Your task to perform on an android device: Search for "logitech g903" on target.com, select the first entry, add it to the cart, then select checkout. Image 0: 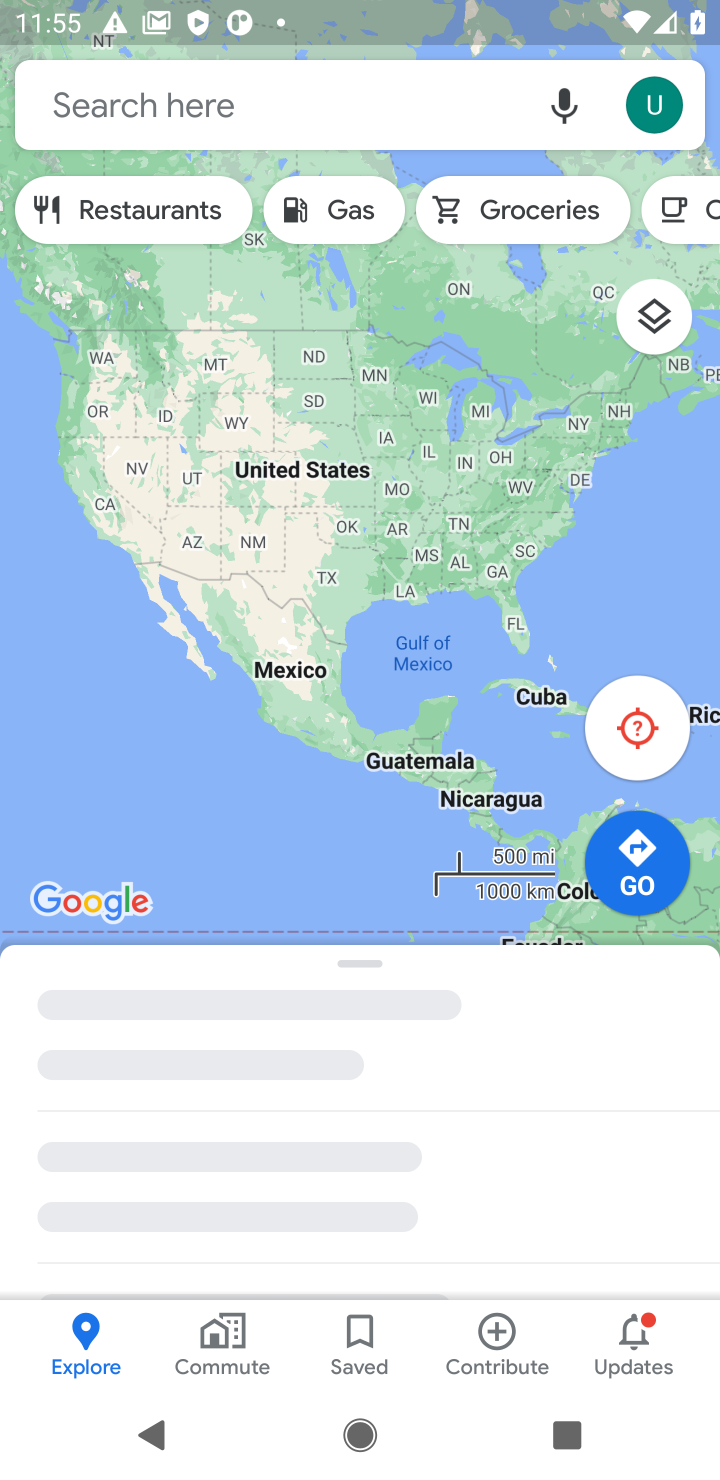
Step 0: press home button
Your task to perform on an android device: Search for "logitech g903" on target.com, select the first entry, add it to the cart, then select checkout. Image 1: 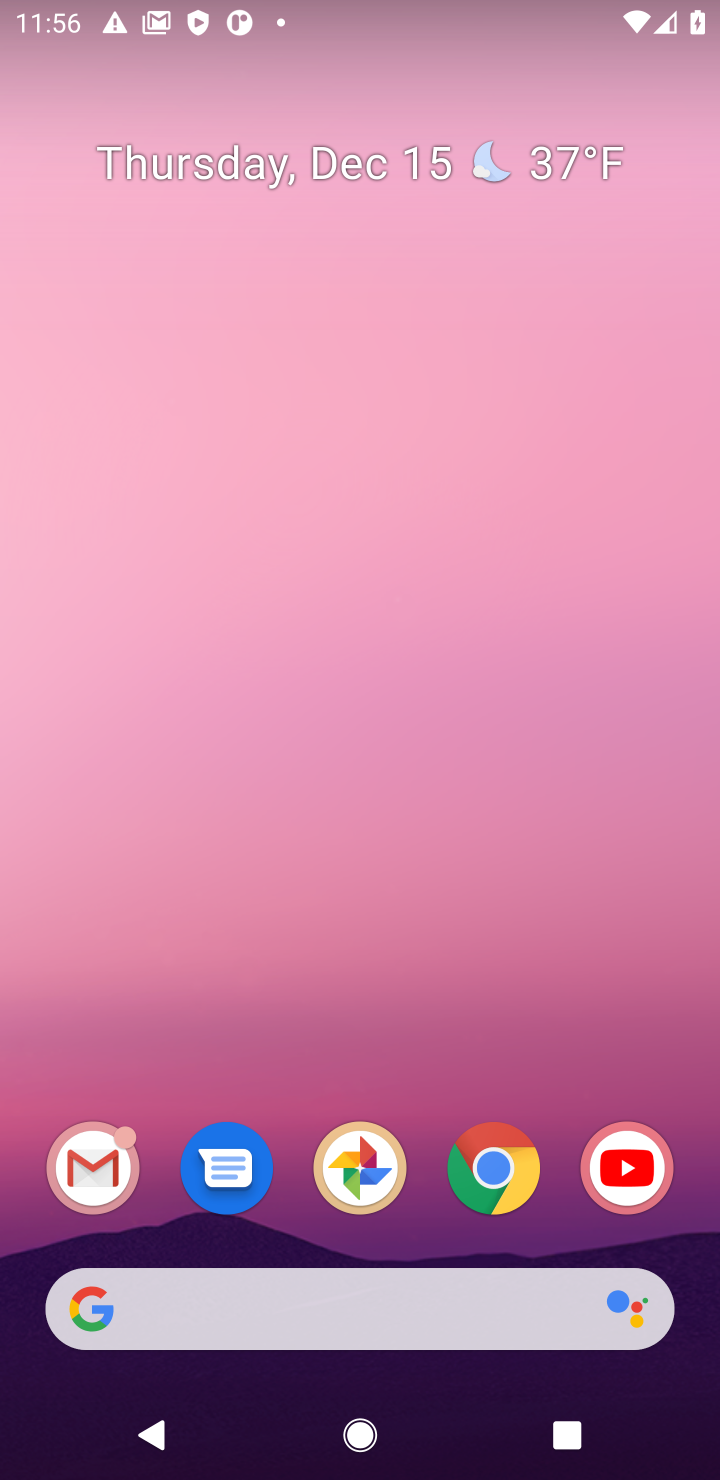
Step 1: click (492, 1175)
Your task to perform on an android device: Search for "logitech g903" on target.com, select the first entry, add it to the cart, then select checkout. Image 2: 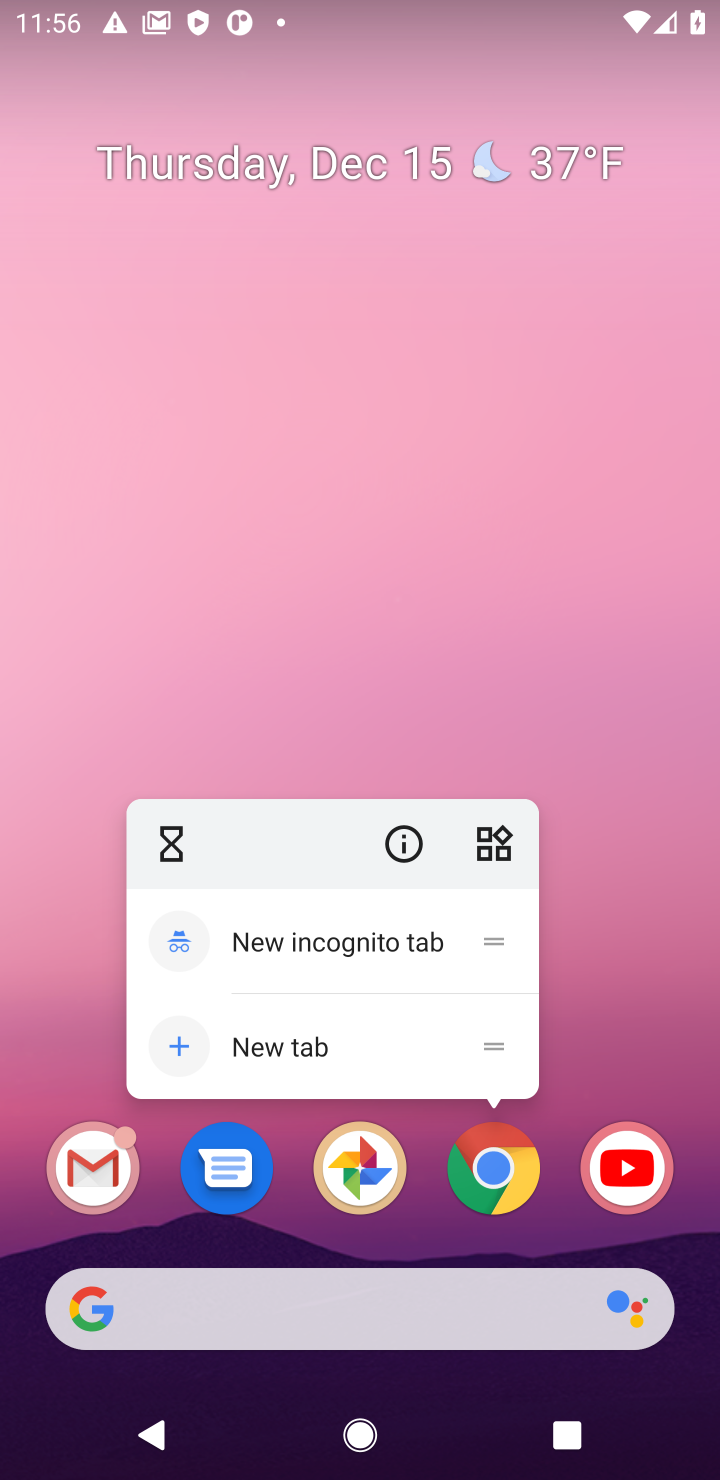
Step 2: click (654, 840)
Your task to perform on an android device: Search for "logitech g903" on target.com, select the first entry, add it to the cart, then select checkout. Image 3: 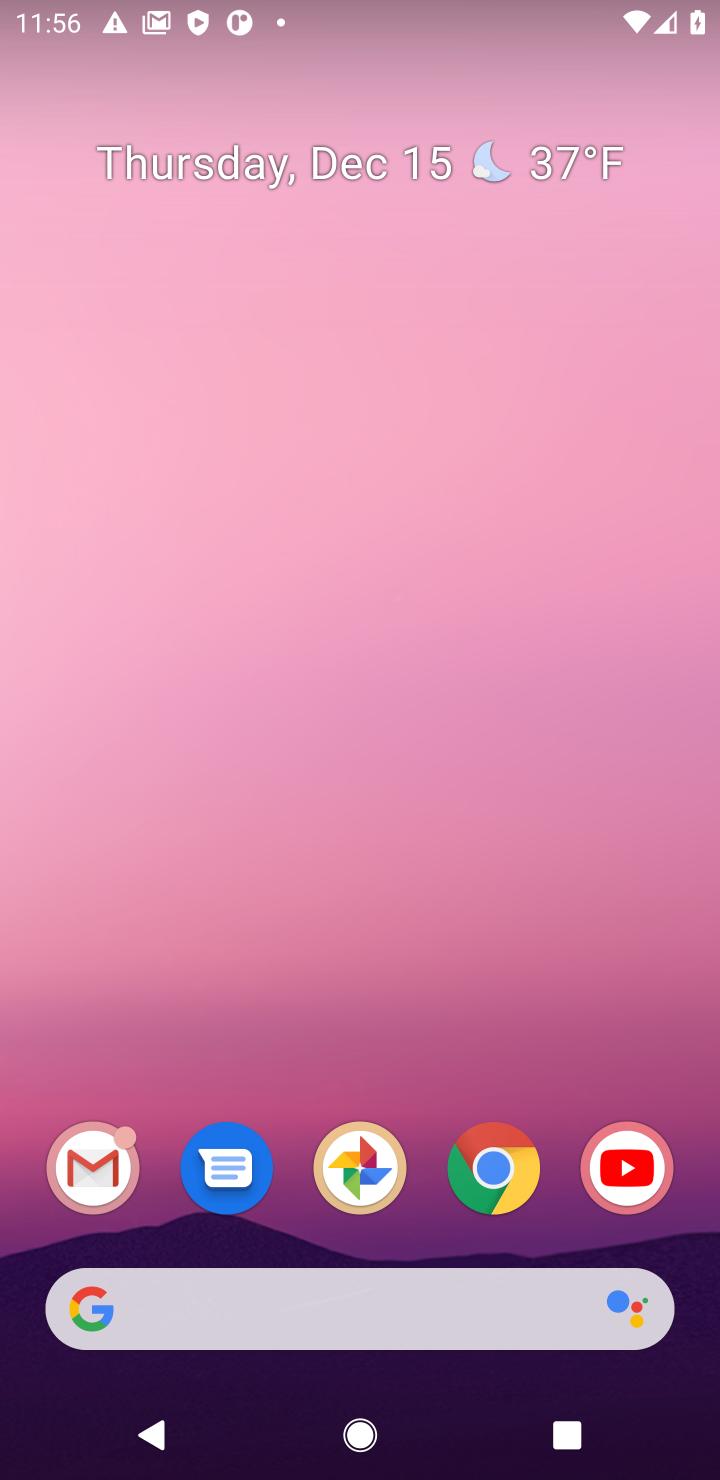
Step 3: click (490, 1197)
Your task to perform on an android device: Search for "logitech g903" on target.com, select the first entry, add it to the cart, then select checkout. Image 4: 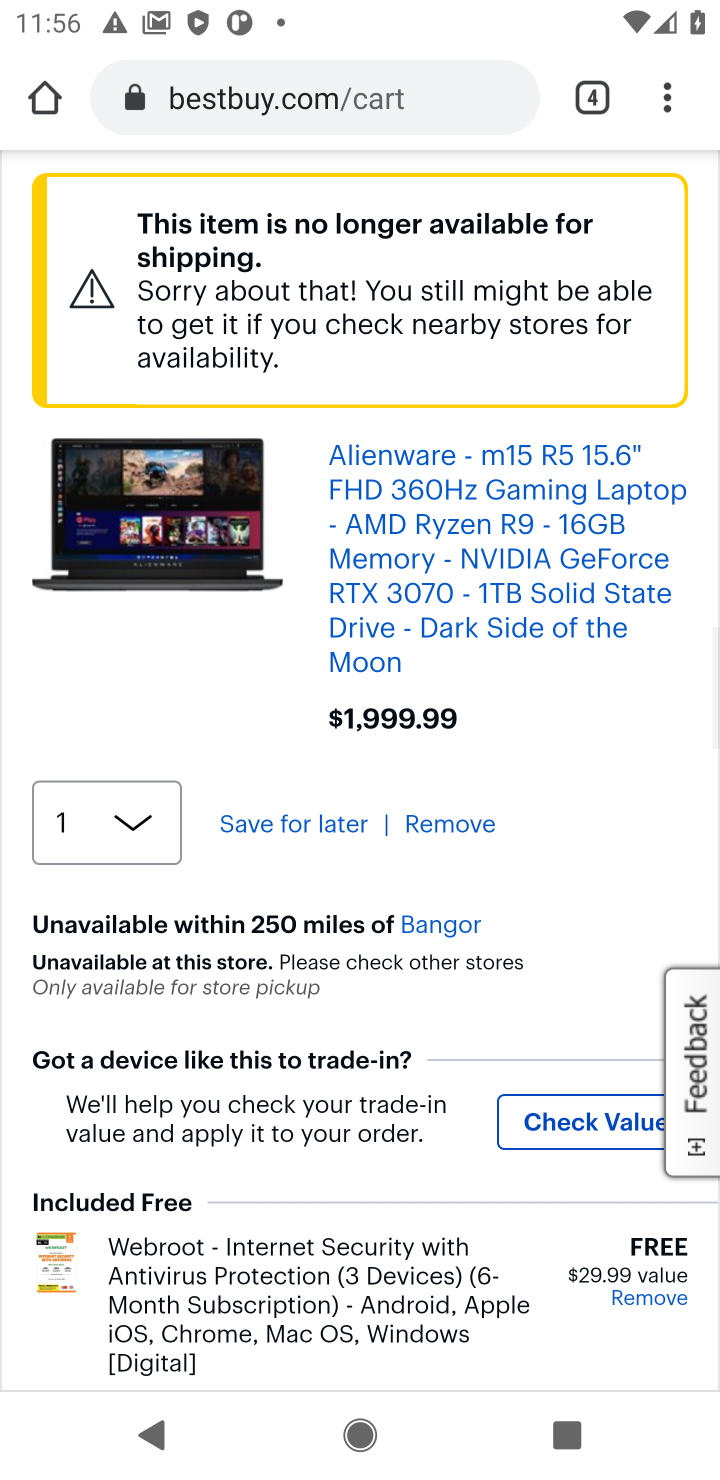
Step 4: click (264, 76)
Your task to perform on an android device: Search for "logitech g903" on target.com, select the first entry, add it to the cart, then select checkout. Image 5: 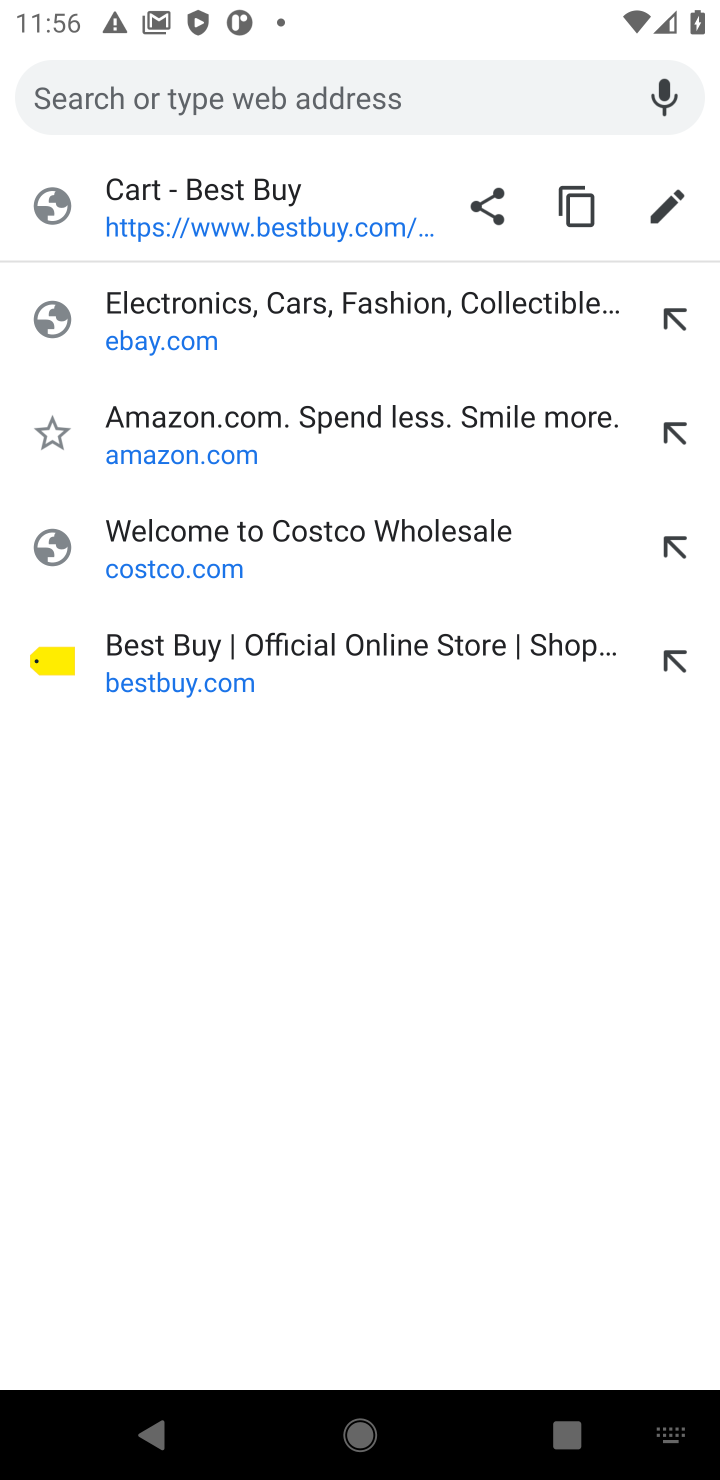
Step 5: type "targety"
Your task to perform on an android device: Search for "logitech g903" on target.com, select the first entry, add it to the cart, then select checkout. Image 6: 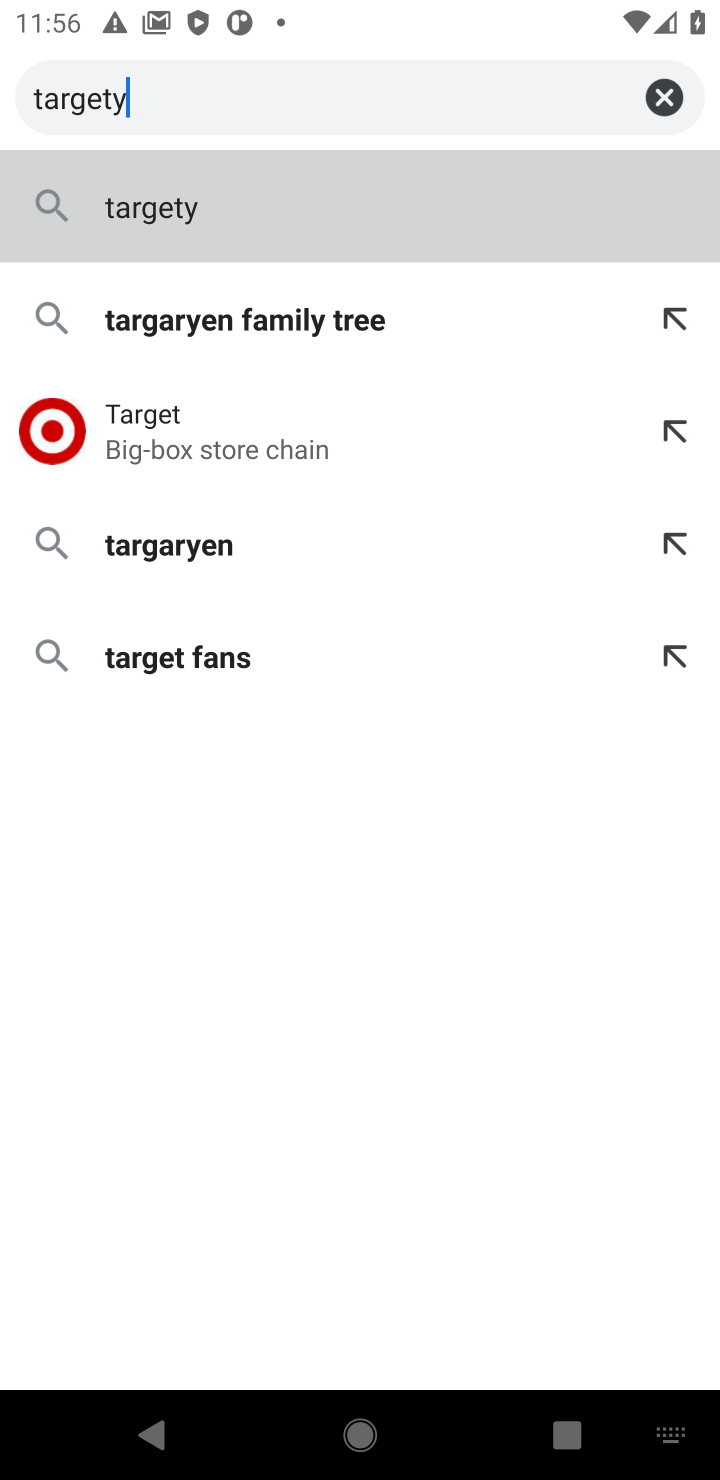
Step 6: click (198, 437)
Your task to perform on an android device: Search for "logitech g903" on target.com, select the first entry, add it to the cart, then select checkout. Image 7: 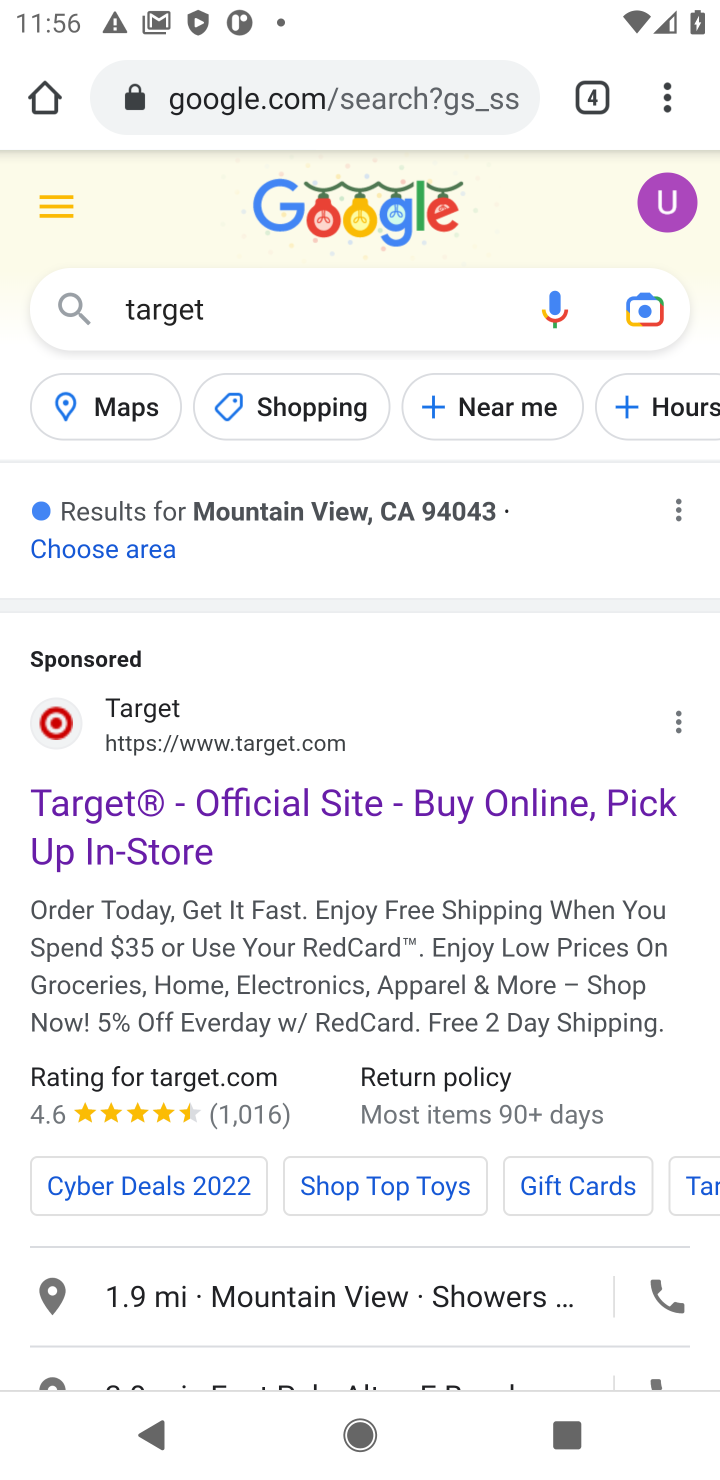
Step 7: click (324, 814)
Your task to perform on an android device: Search for "logitech g903" on target.com, select the first entry, add it to the cart, then select checkout. Image 8: 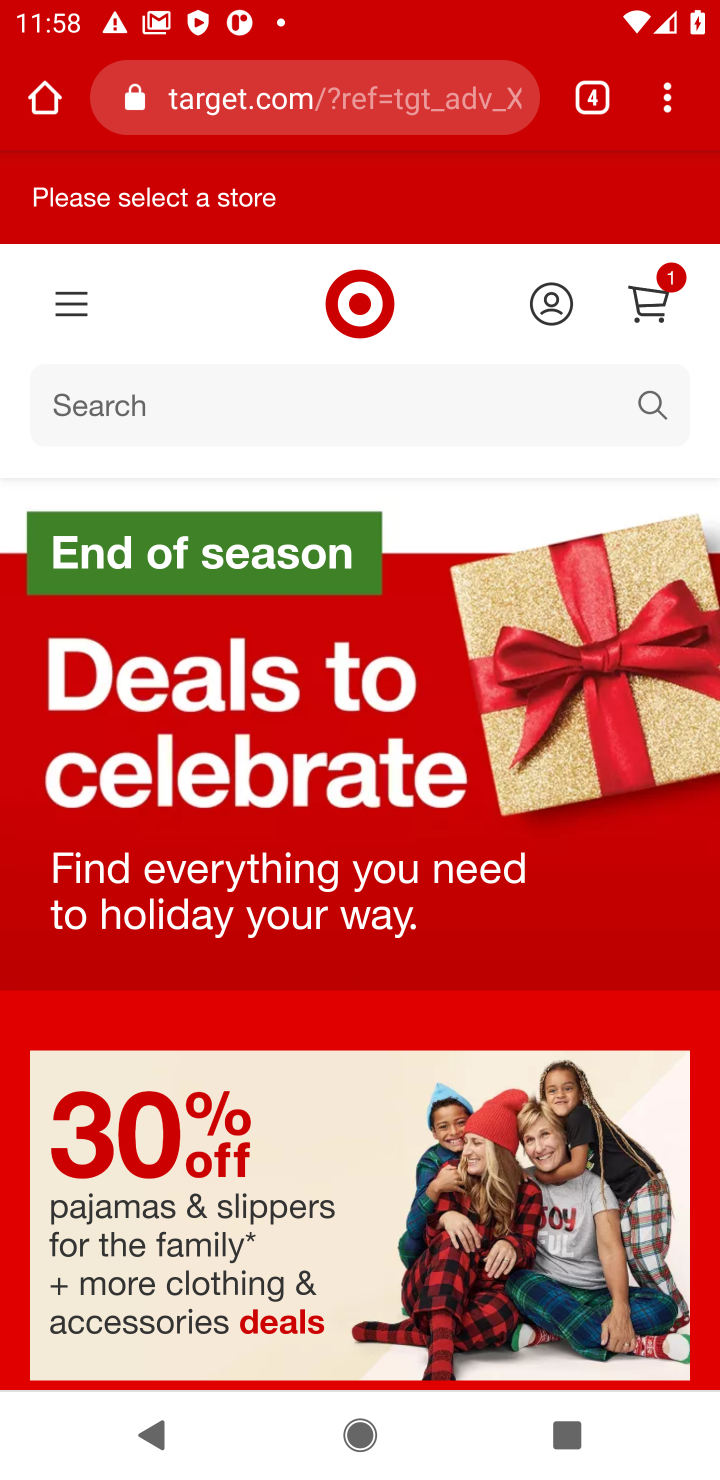
Step 8: click (415, 413)
Your task to perform on an android device: Search for "logitech g903" on target.com, select the first entry, add it to the cart, then select checkout. Image 9: 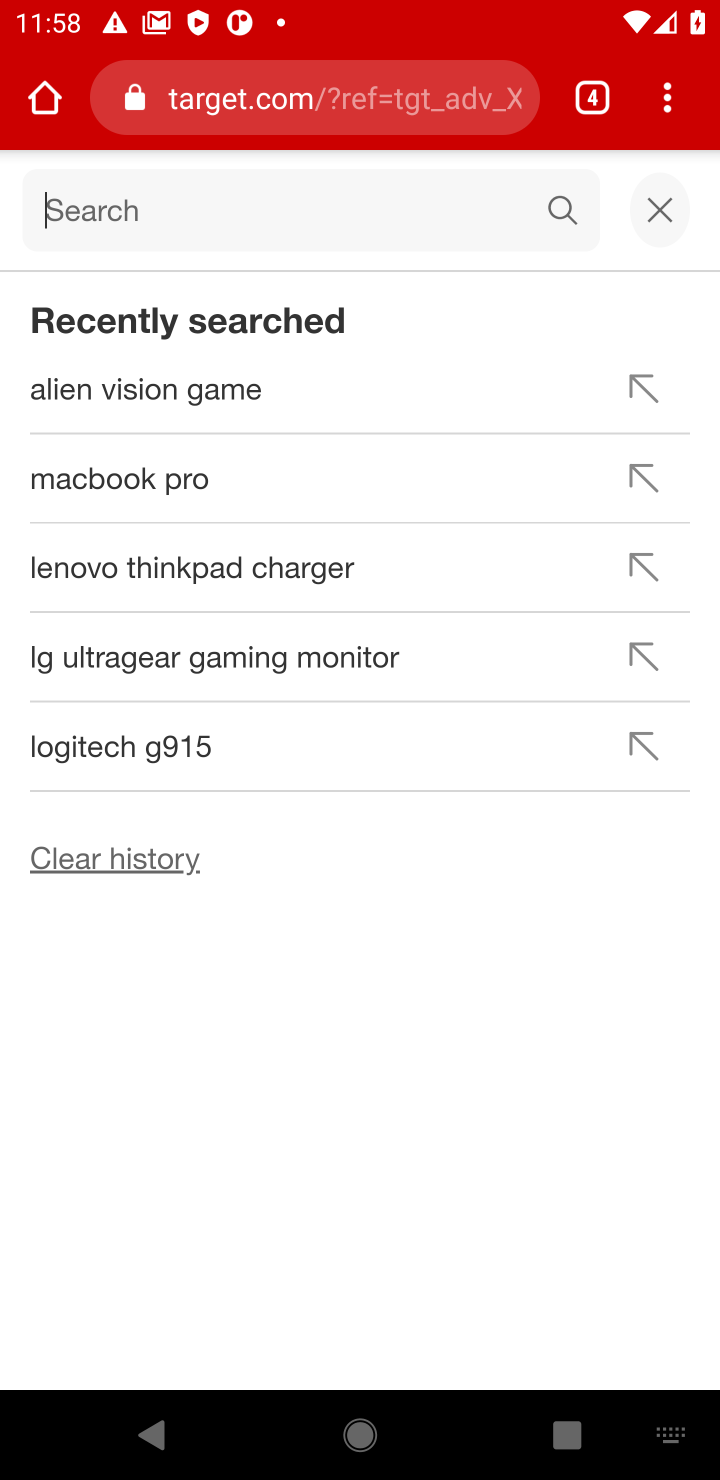
Step 9: type "logitech g903"
Your task to perform on an android device: Search for "logitech g903" on target.com, select the first entry, add it to the cart, then select checkout. Image 10: 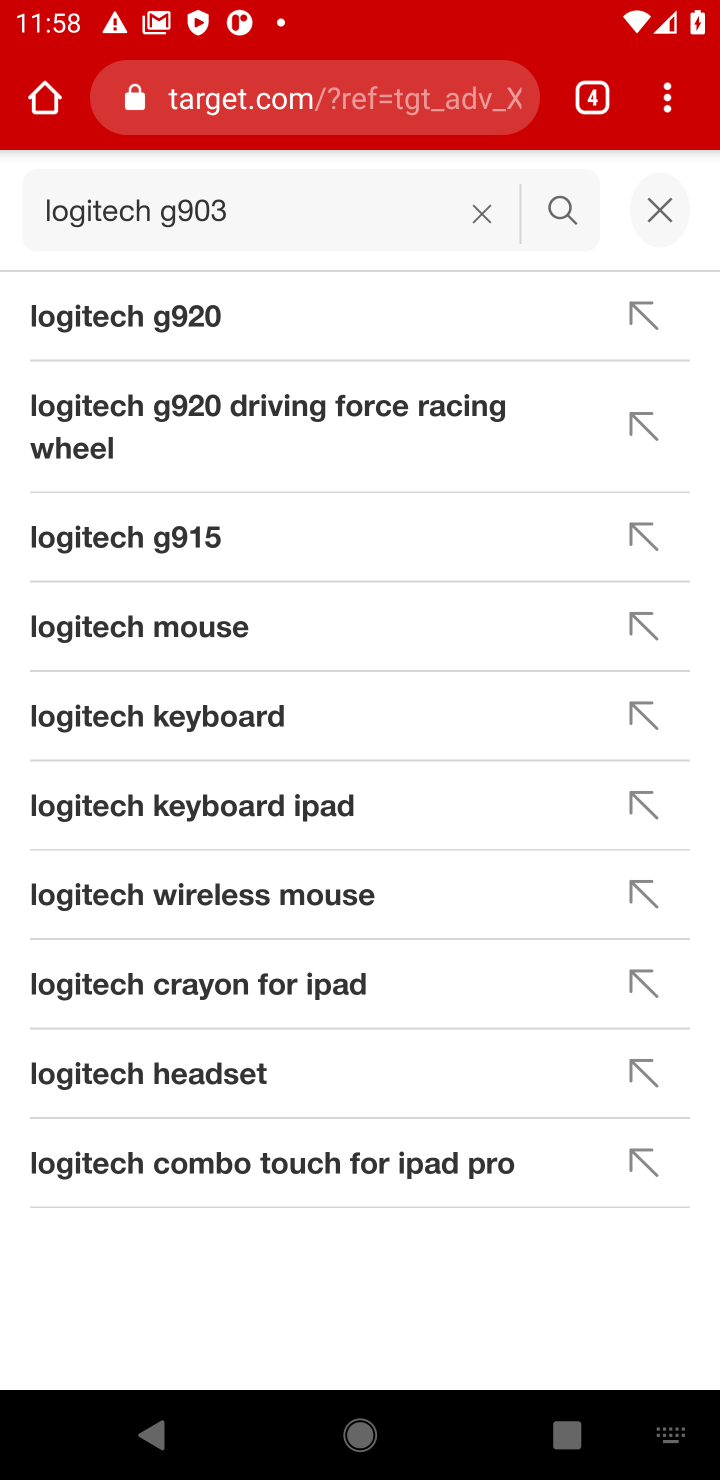
Step 10: click (101, 325)
Your task to perform on an android device: Search for "logitech g903" on target.com, select the first entry, add it to the cart, then select checkout. Image 11: 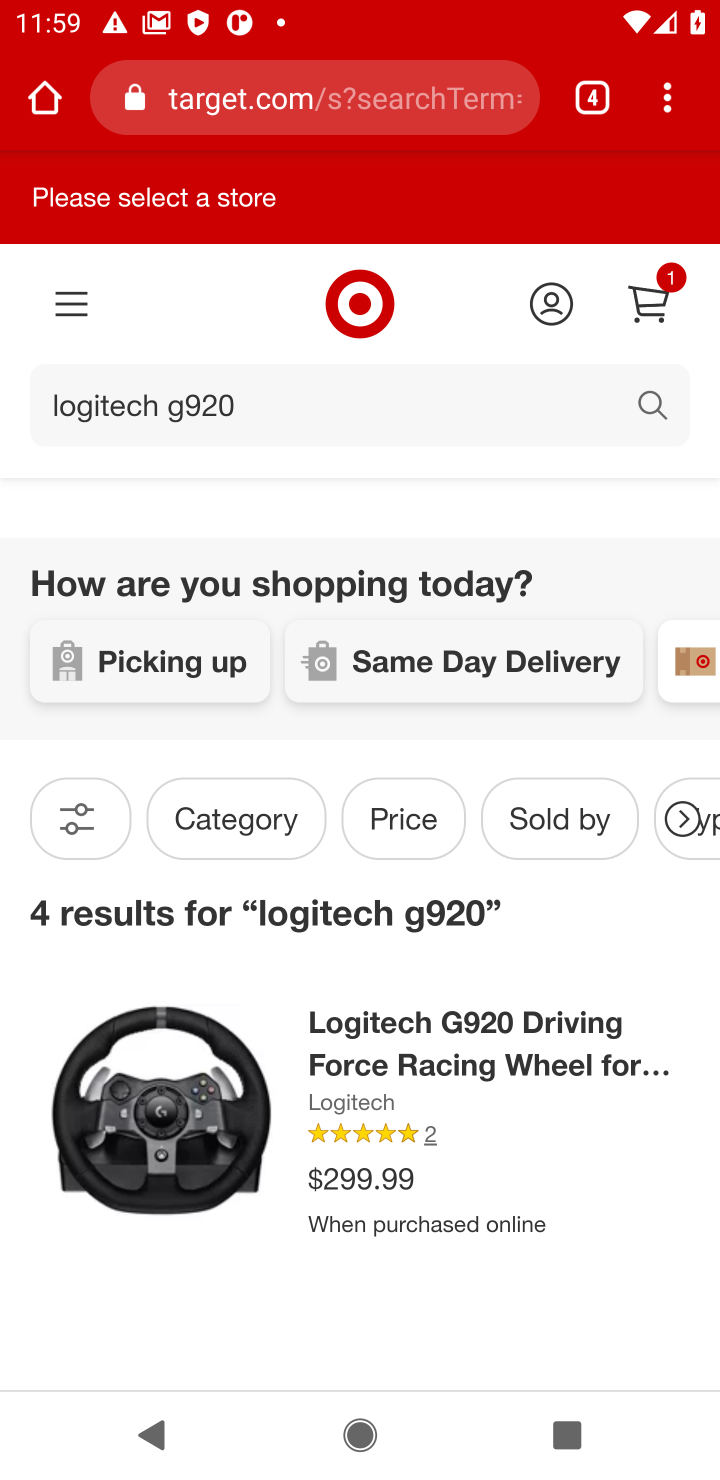
Step 11: click (496, 1062)
Your task to perform on an android device: Search for "logitech g903" on target.com, select the first entry, add it to the cart, then select checkout. Image 12: 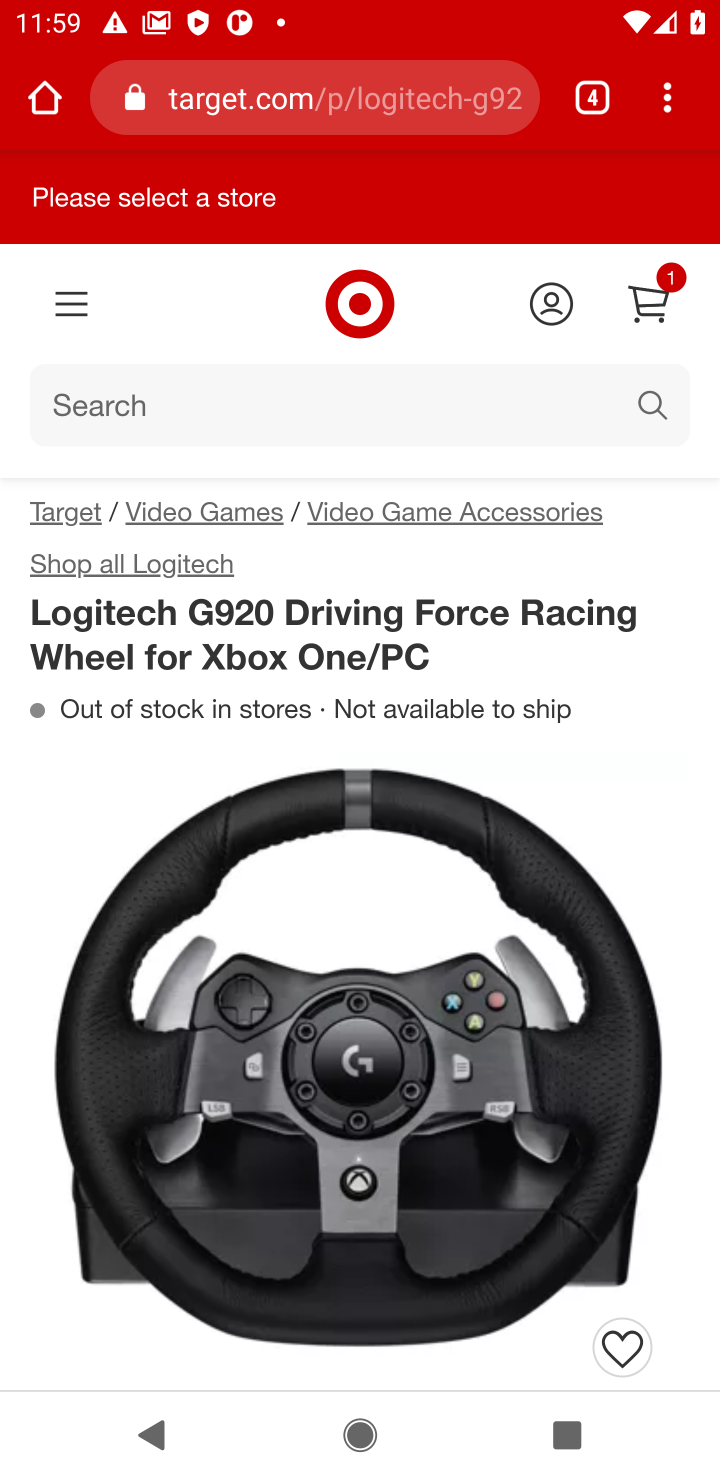
Step 12: drag from (478, 1243) to (479, 258)
Your task to perform on an android device: Search for "logitech g903" on target.com, select the first entry, add it to the cart, then select checkout. Image 13: 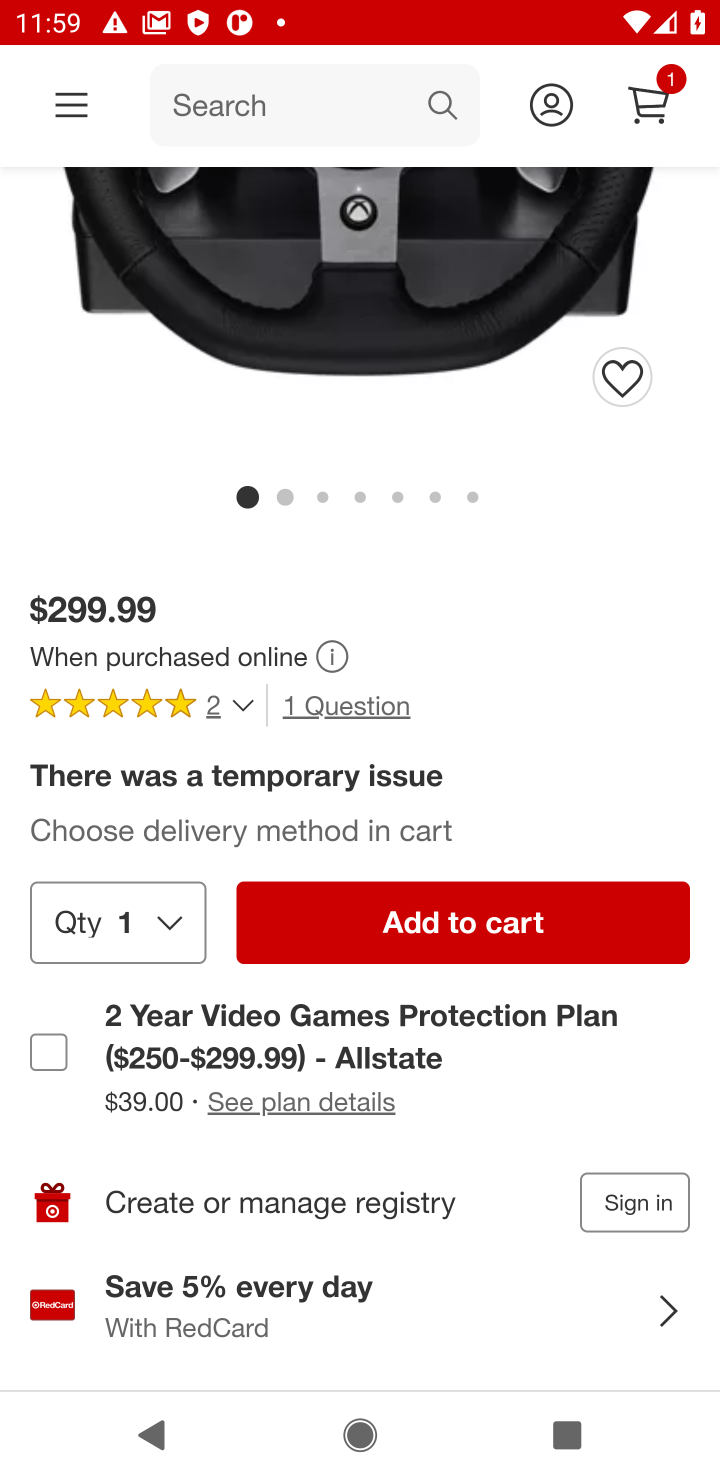
Step 13: click (496, 910)
Your task to perform on an android device: Search for "logitech g903" on target.com, select the first entry, add it to the cart, then select checkout. Image 14: 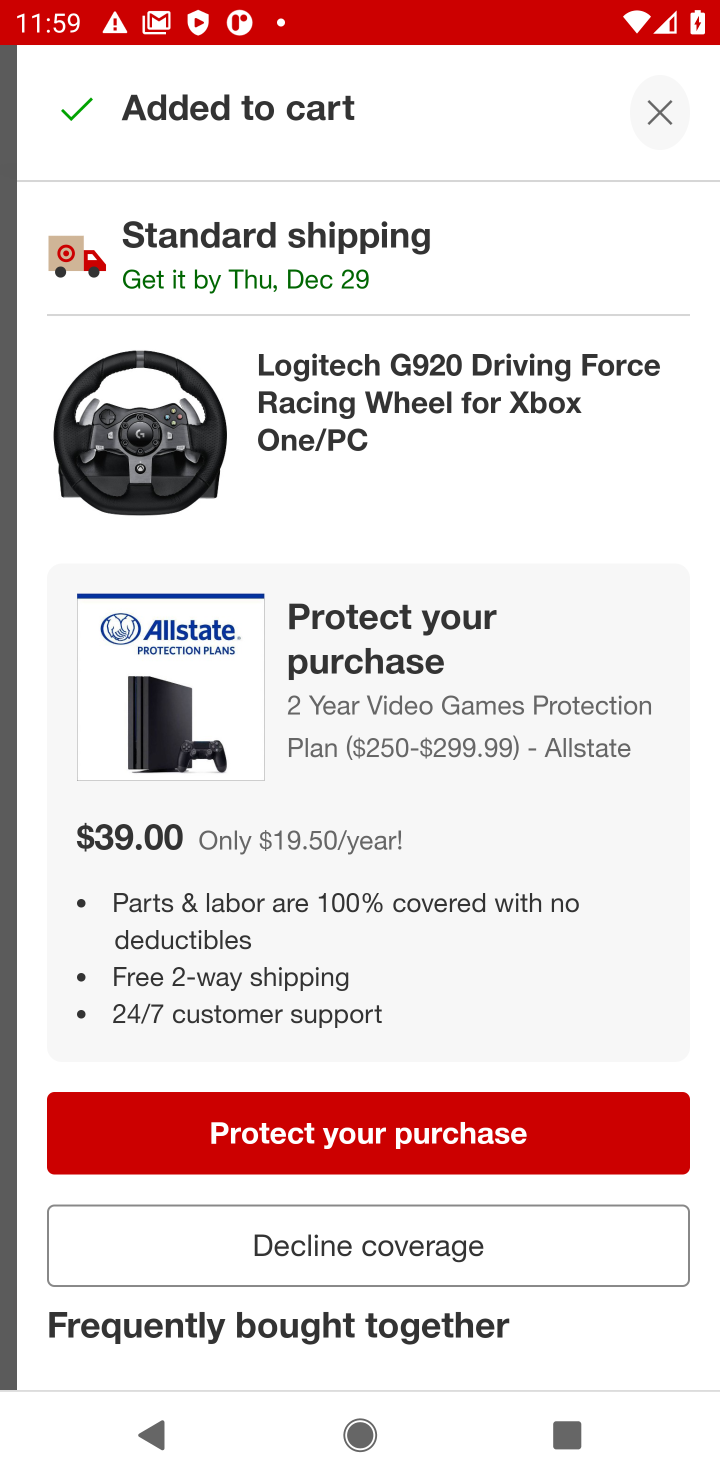
Step 14: click (354, 1245)
Your task to perform on an android device: Search for "logitech g903" on target.com, select the first entry, add it to the cart, then select checkout. Image 15: 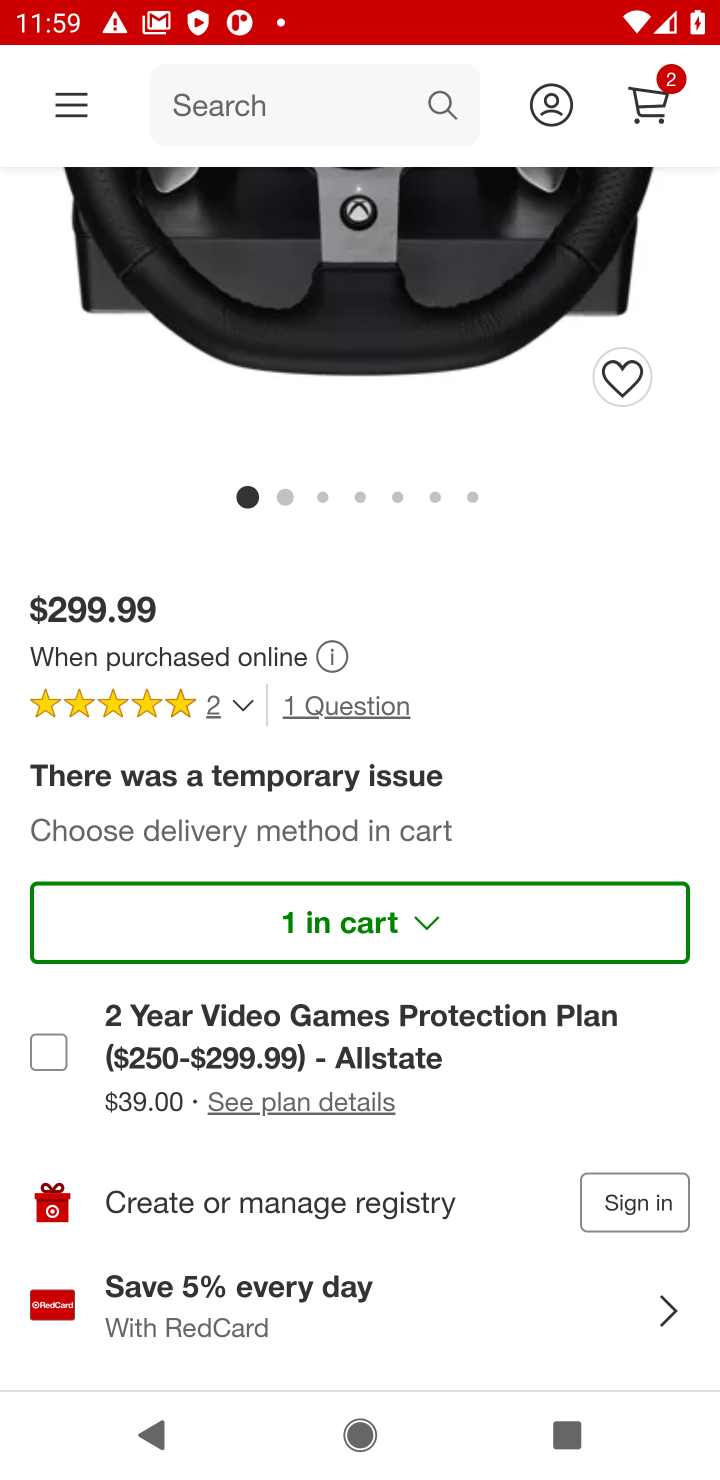
Step 15: task complete